Your task to perform on an android device: Open Youtube and go to the subscriptions tab Image 0: 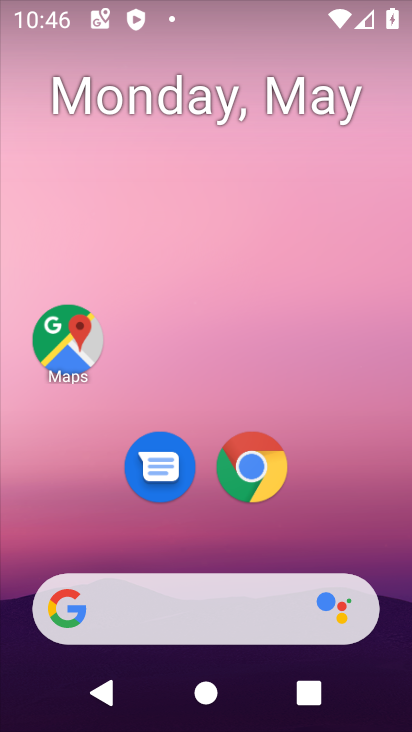
Step 0: drag from (388, 711) to (351, 169)
Your task to perform on an android device: Open Youtube and go to the subscriptions tab Image 1: 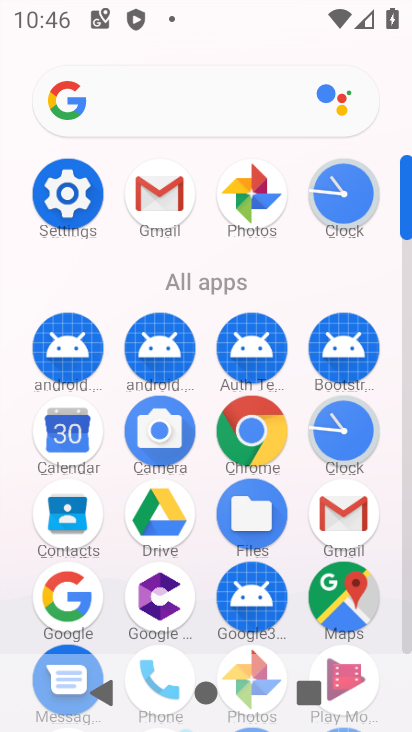
Step 1: drag from (200, 609) to (190, 177)
Your task to perform on an android device: Open Youtube and go to the subscriptions tab Image 2: 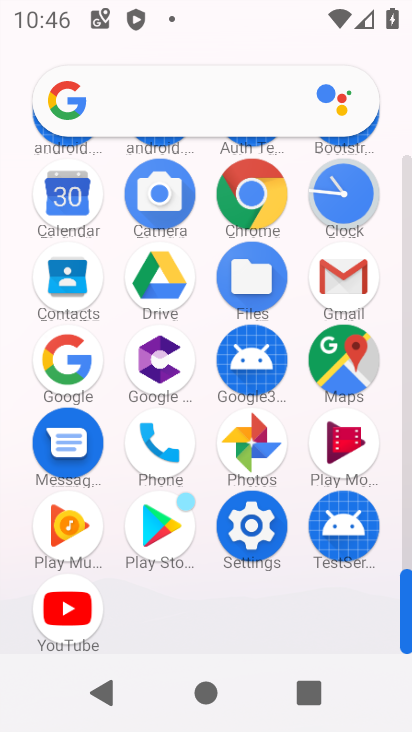
Step 2: click (79, 600)
Your task to perform on an android device: Open Youtube and go to the subscriptions tab Image 3: 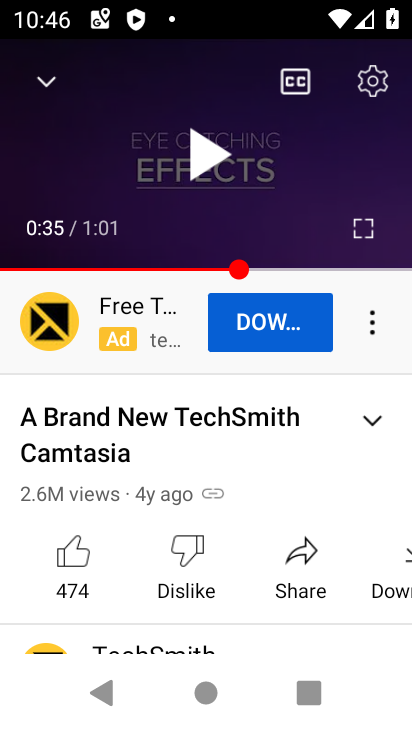
Step 3: drag from (239, 553) to (240, 289)
Your task to perform on an android device: Open Youtube and go to the subscriptions tab Image 4: 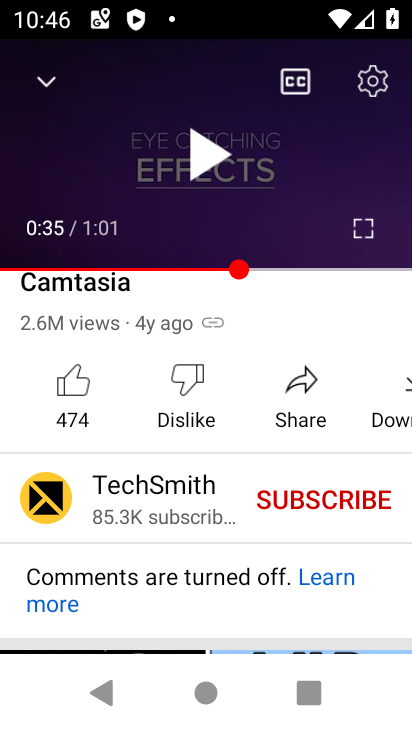
Step 4: press back button
Your task to perform on an android device: Open Youtube and go to the subscriptions tab Image 5: 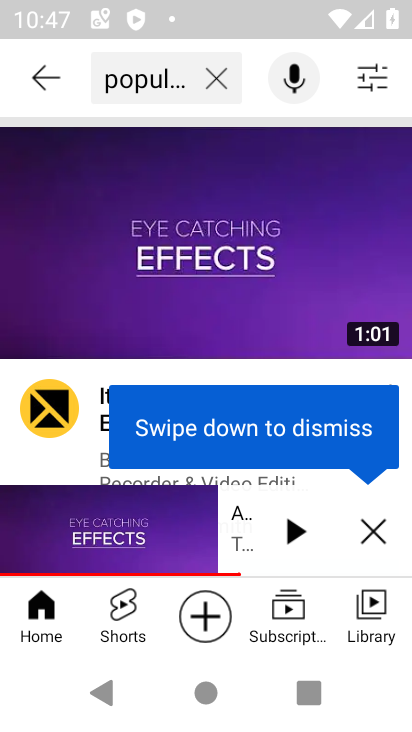
Step 5: click (380, 539)
Your task to perform on an android device: Open Youtube and go to the subscriptions tab Image 6: 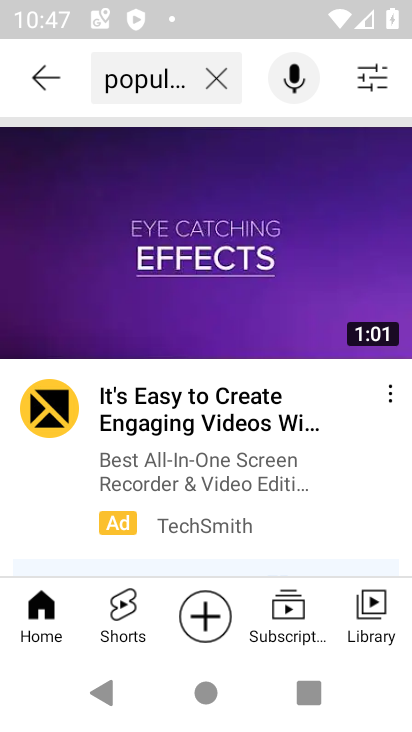
Step 6: click (275, 619)
Your task to perform on an android device: Open Youtube and go to the subscriptions tab Image 7: 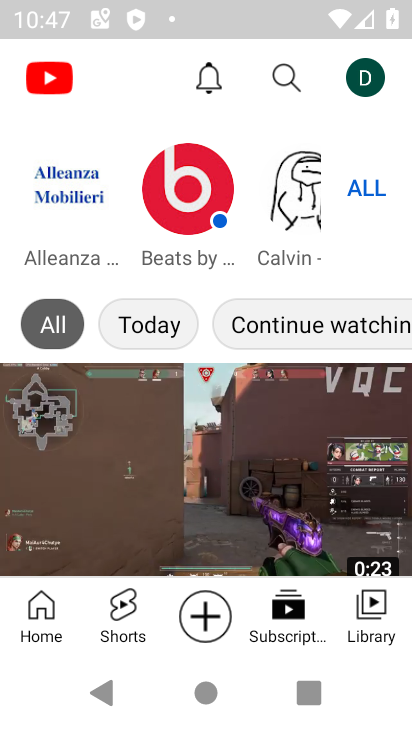
Step 7: click (273, 633)
Your task to perform on an android device: Open Youtube and go to the subscriptions tab Image 8: 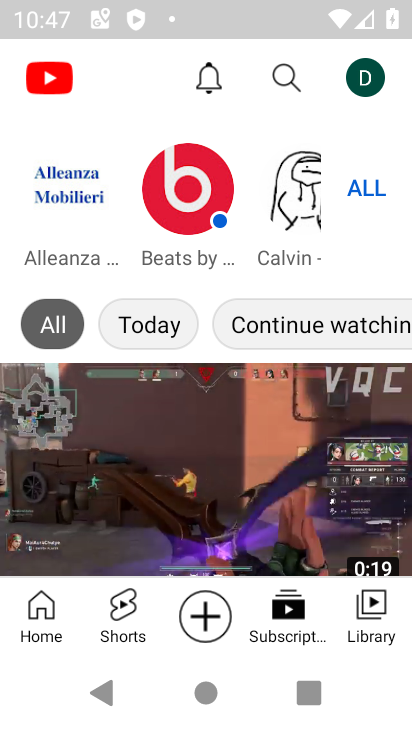
Step 8: task complete